Your task to perform on an android device: Open Android settings Image 0: 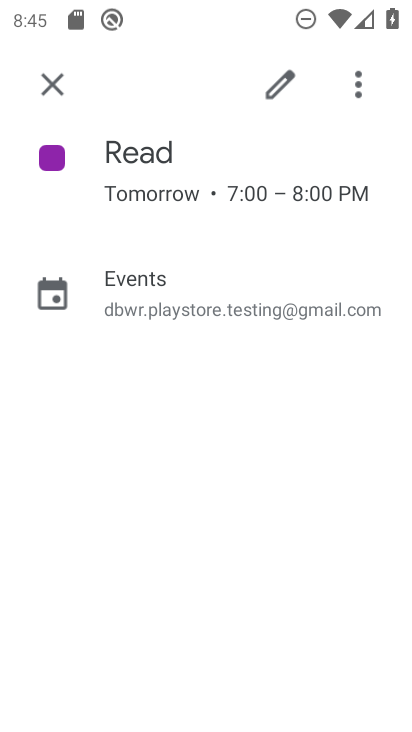
Step 0: press home button
Your task to perform on an android device: Open Android settings Image 1: 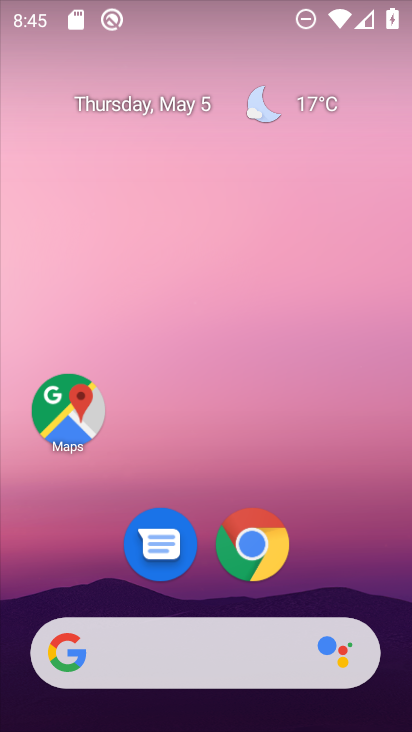
Step 1: drag from (383, 647) to (302, 66)
Your task to perform on an android device: Open Android settings Image 2: 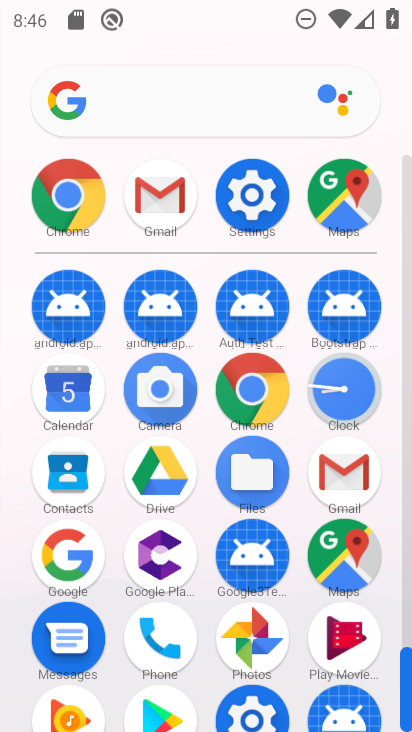
Step 2: click (262, 203)
Your task to perform on an android device: Open Android settings Image 3: 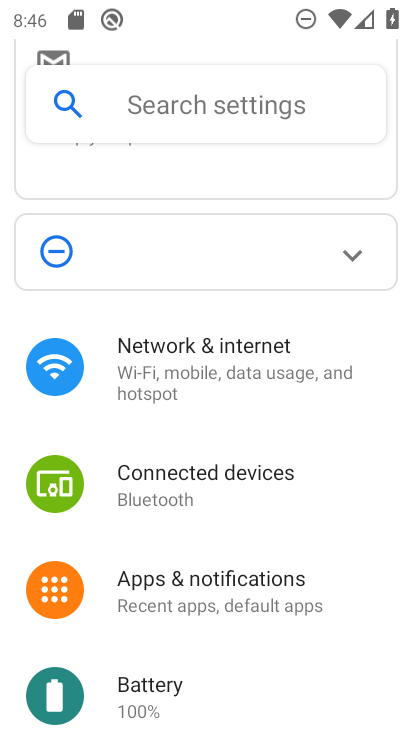
Step 3: drag from (245, 619) to (212, 66)
Your task to perform on an android device: Open Android settings Image 4: 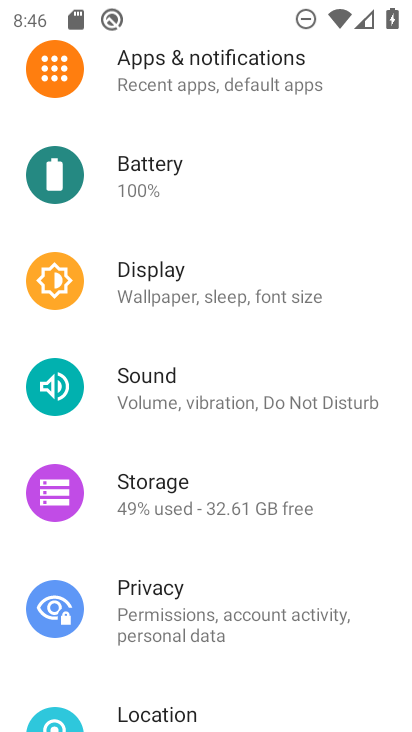
Step 4: drag from (157, 690) to (283, 70)
Your task to perform on an android device: Open Android settings Image 5: 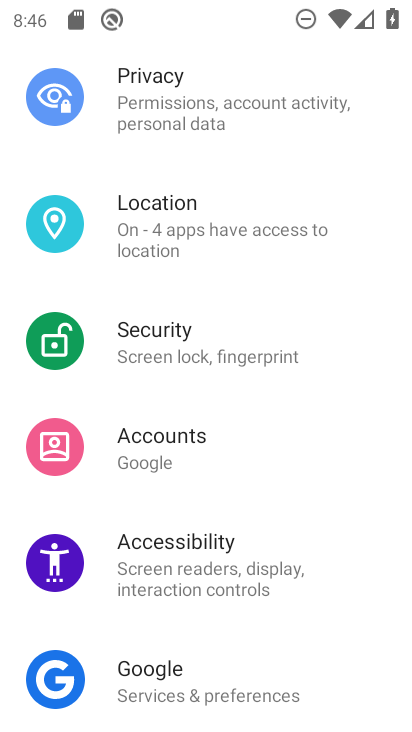
Step 5: drag from (124, 646) to (248, 51)
Your task to perform on an android device: Open Android settings Image 6: 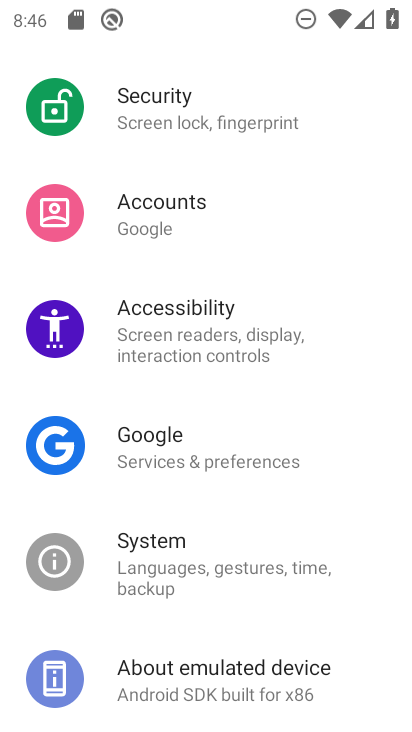
Step 6: click (228, 681)
Your task to perform on an android device: Open Android settings Image 7: 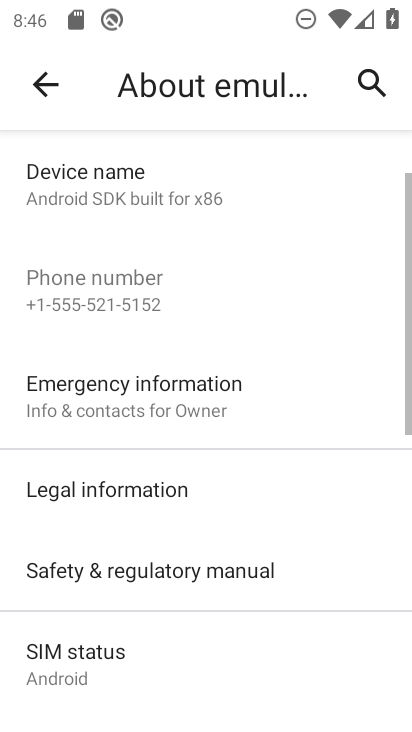
Step 7: drag from (128, 666) to (204, 308)
Your task to perform on an android device: Open Android settings Image 8: 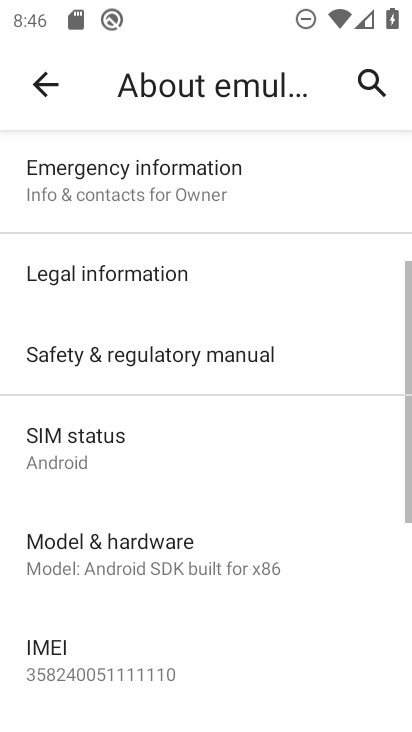
Step 8: click (206, 246)
Your task to perform on an android device: Open Android settings Image 9: 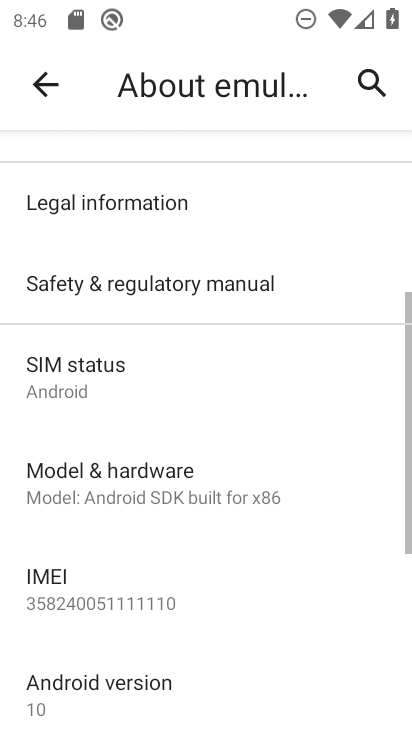
Step 9: drag from (136, 511) to (199, 226)
Your task to perform on an android device: Open Android settings Image 10: 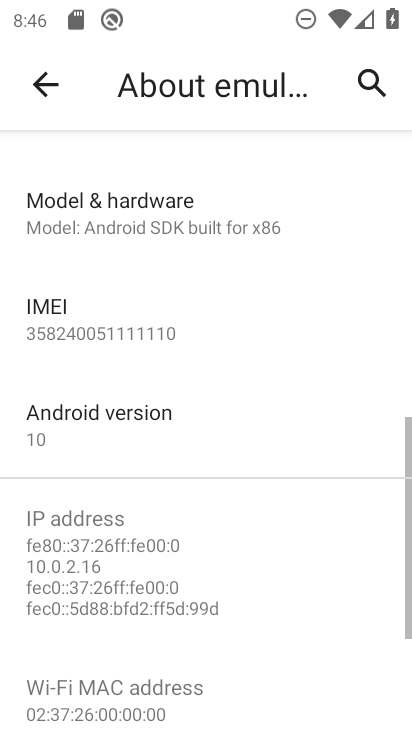
Step 10: click (148, 443)
Your task to perform on an android device: Open Android settings Image 11: 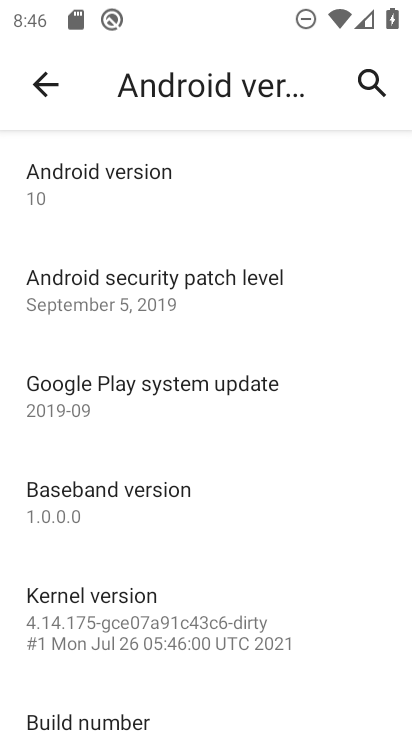
Step 11: task complete